Your task to perform on an android device: Check the news Image 0: 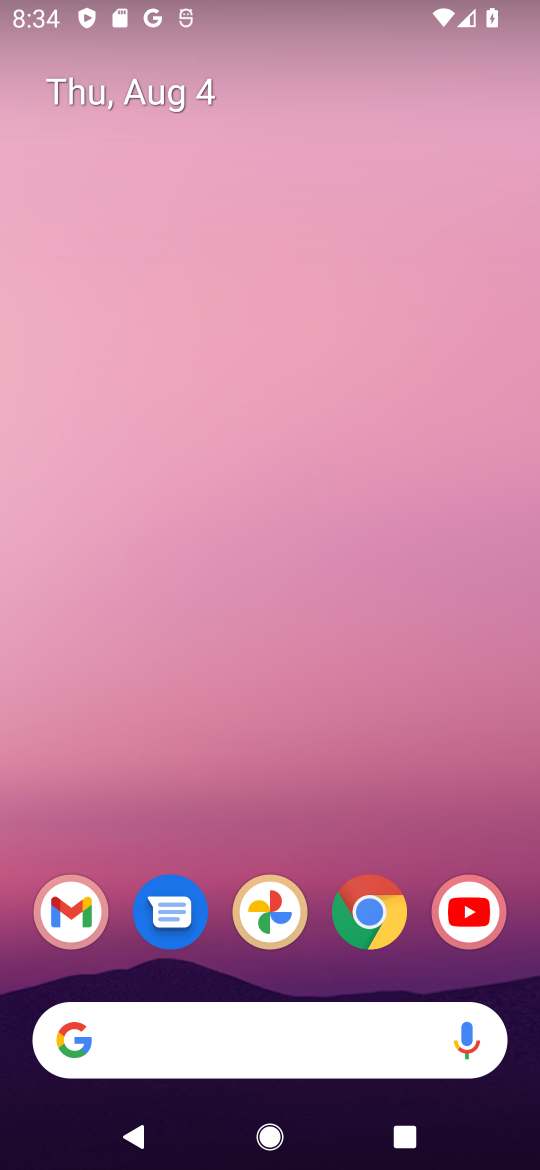
Step 0: click (361, 892)
Your task to perform on an android device: Check the news Image 1: 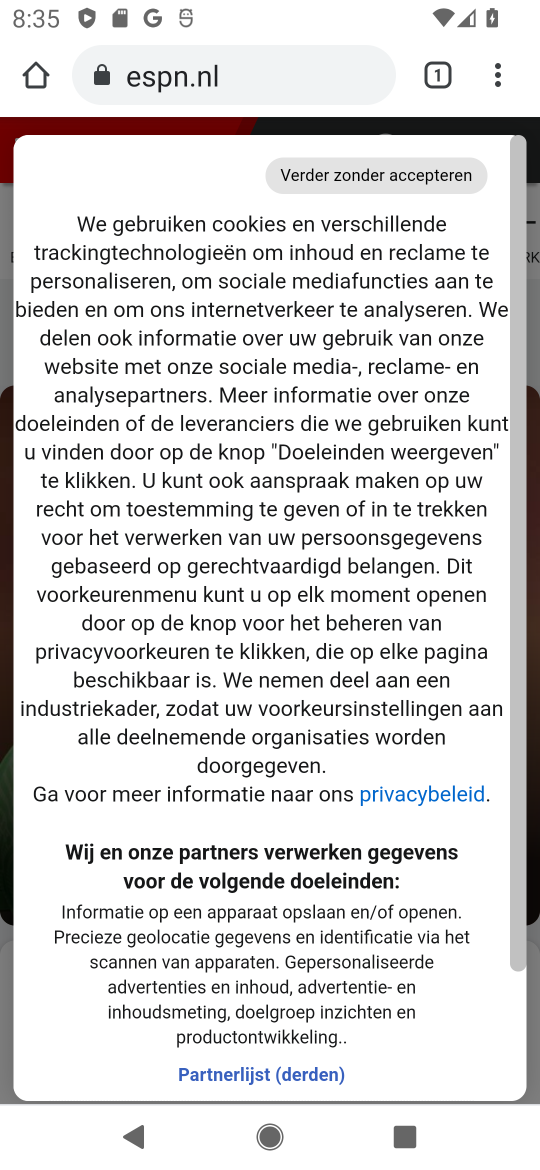
Step 1: click (329, 53)
Your task to perform on an android device: Check the news Image 2: 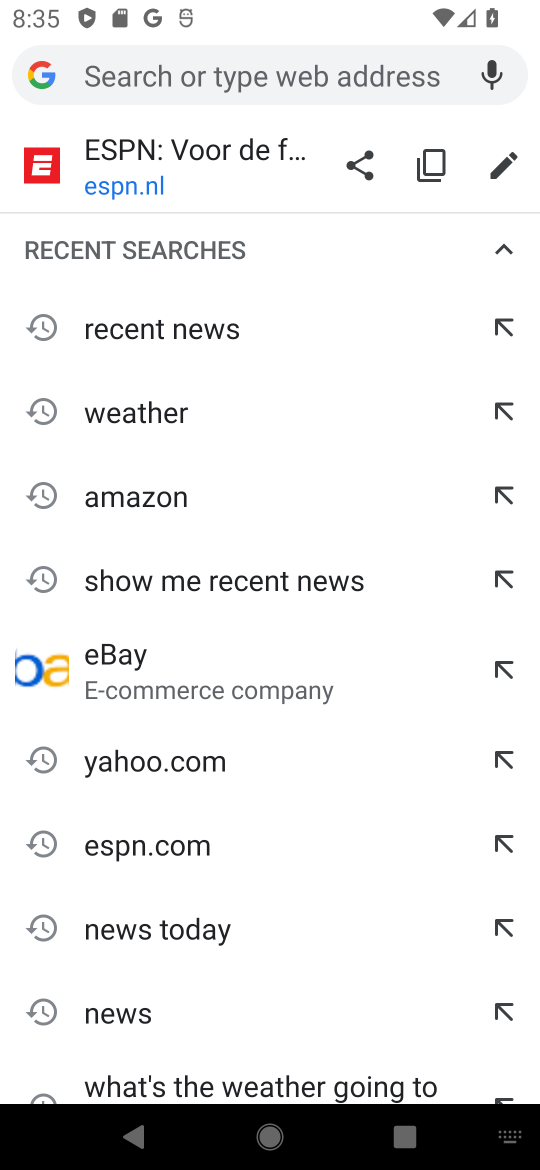
Step 2: type "Check the news"
Your task to perform on an android device: Check the news Image 3: 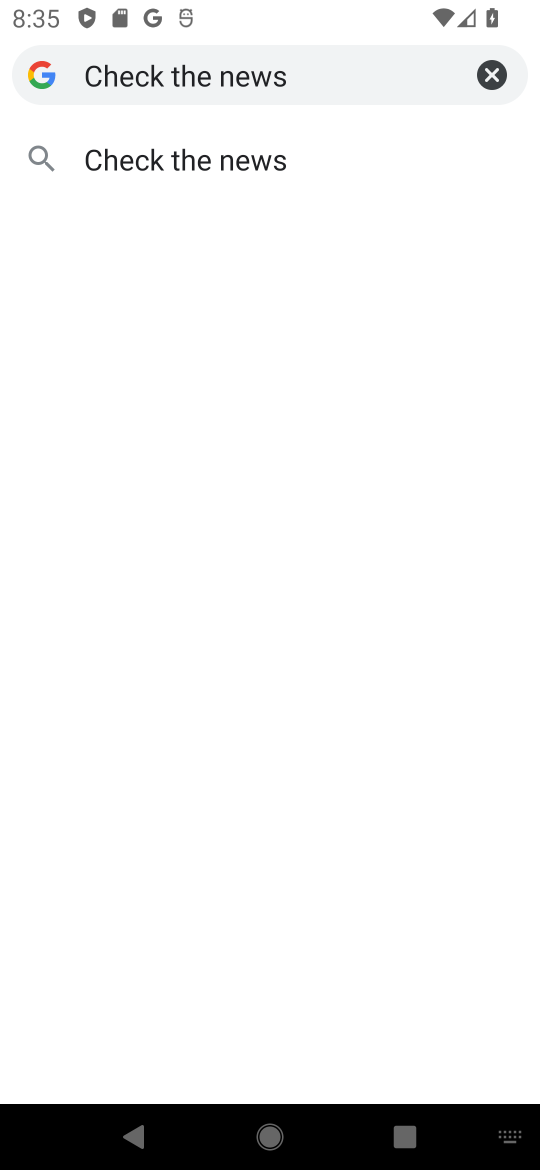
Step 3: click (365, 156)
Your task to perform on an android device: Check the news Image 4: 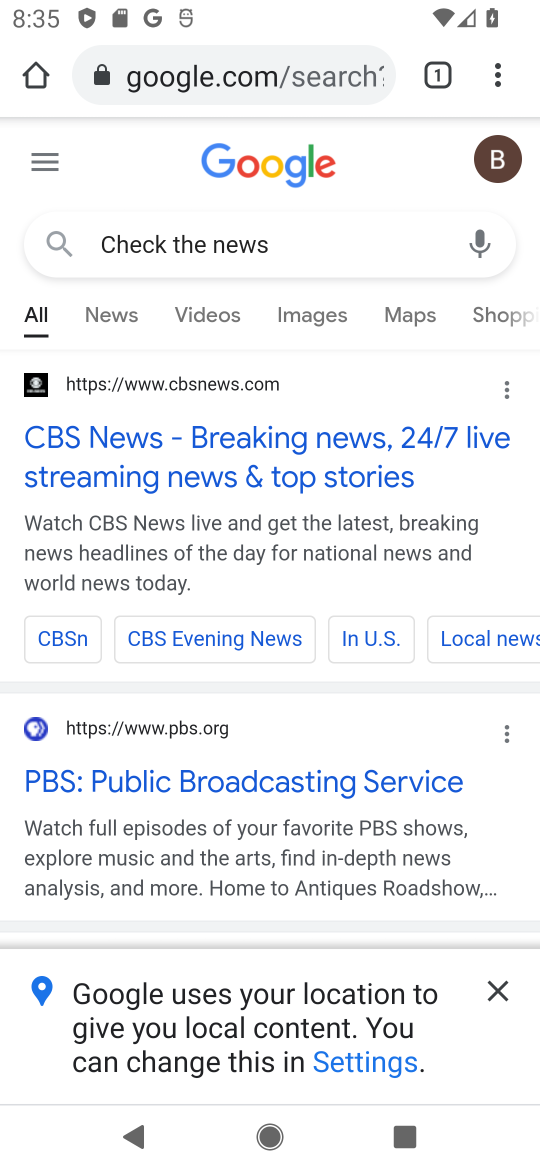
Step 4: click (319, 468)
Your task to perform on an android device: Check the news Image 5: 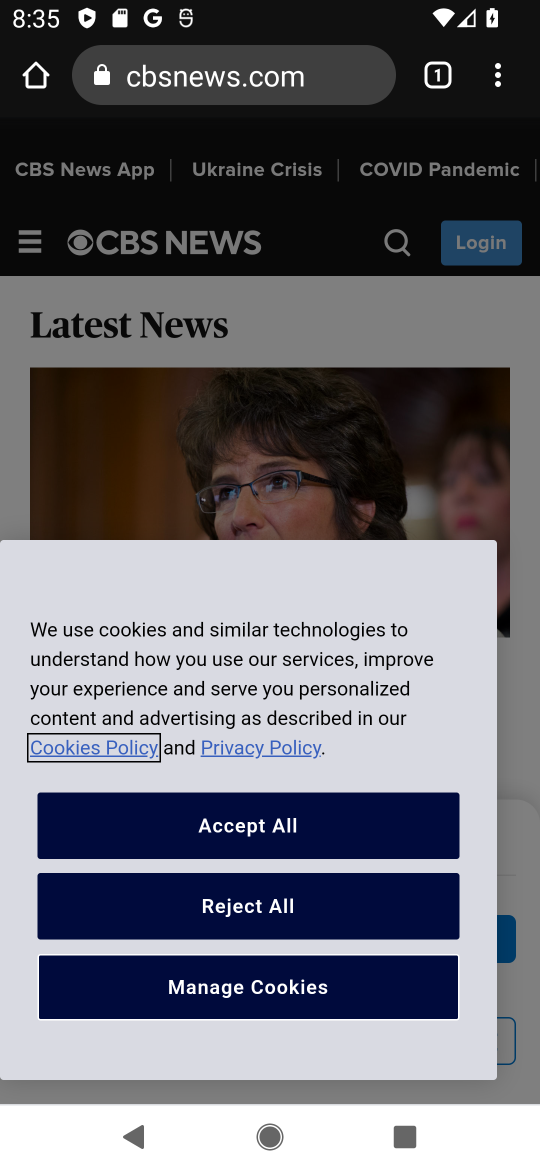
Step 5: task complete